Your task to perform on an android device: Open Yahoo.com Image 0: 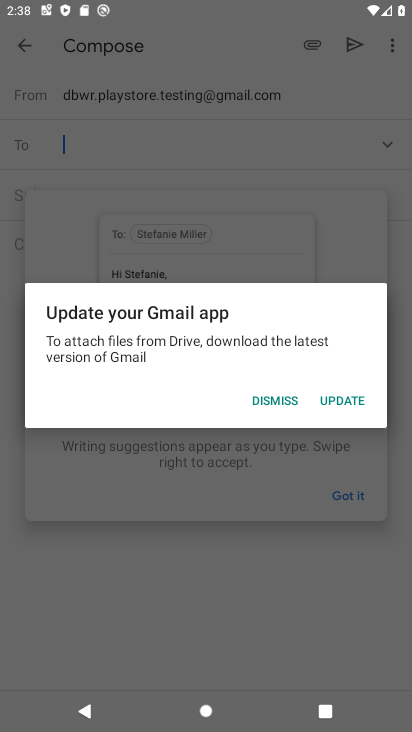
Step 0: press back button
Your task to perform on an android device: Open Yahoo.com Image 1: 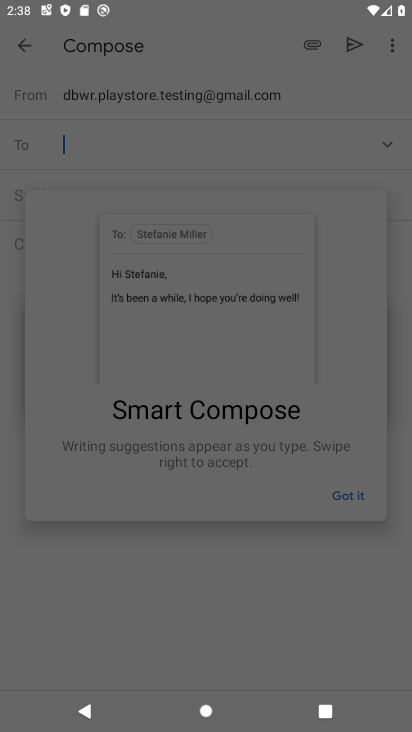
Step 1: press home button
Your task to perform on an android device: Open Yahoo.com Image 2: 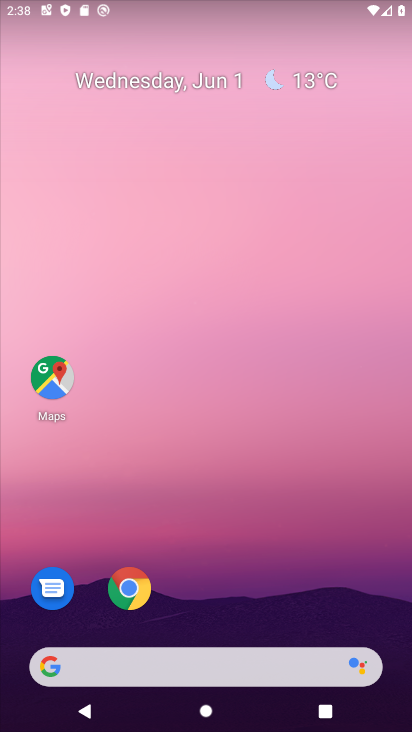
Step 2: click (121, 585)
Your task to perform on an android device: Open Yahoo.com Image 3: 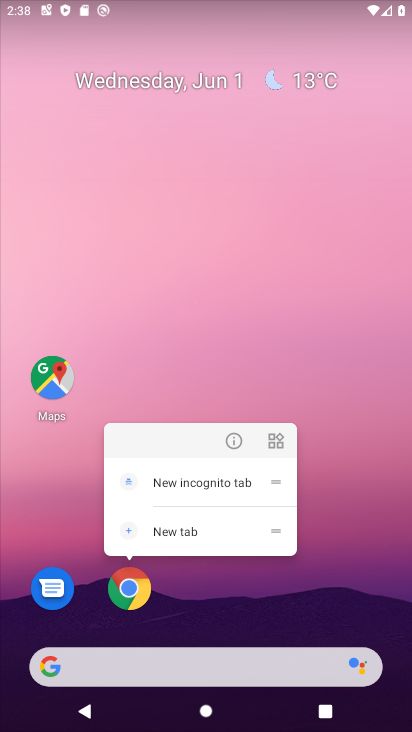
Step 3: click (128, 584)
Your task to perform on an android device: Open Yahoo.com Image 4: 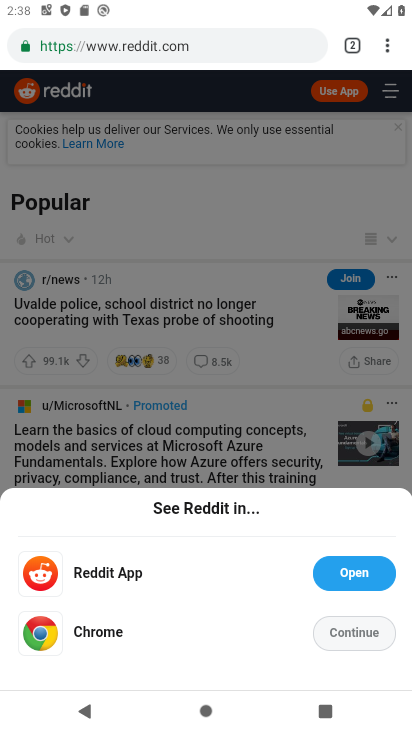
Step 4: click (354, 45)
Your task to perform on an android device: Open Yahoo.com Image 5: 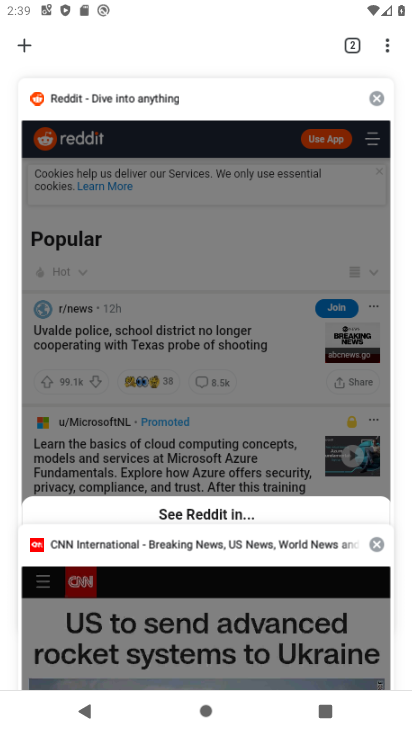
Step 5: click (11, 39)
Your task to perform on an android device: Open Yahoo.com Image 6: 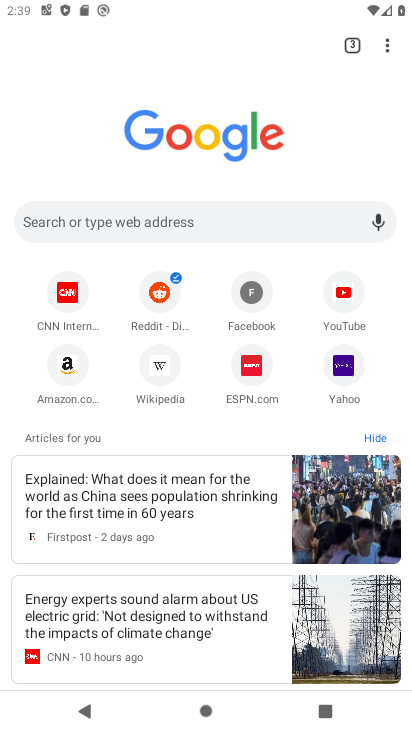
Step 6: click (343, 379)
Your task to perform on an android device: Open Yahoo.com Image 7: 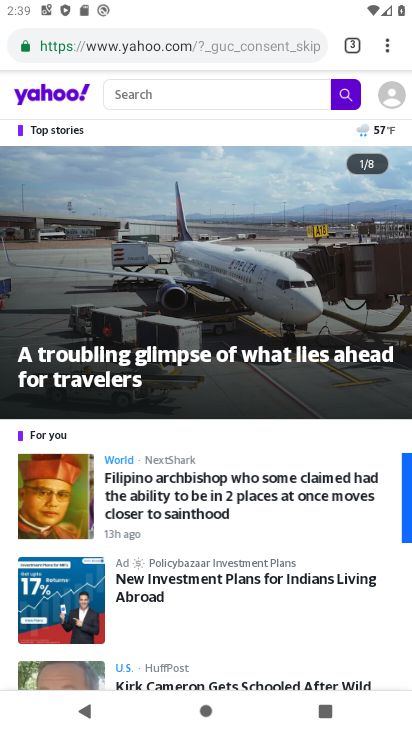
Step 7: task complete